Your task to perform on an android device: turn on sleep mode Image 0: 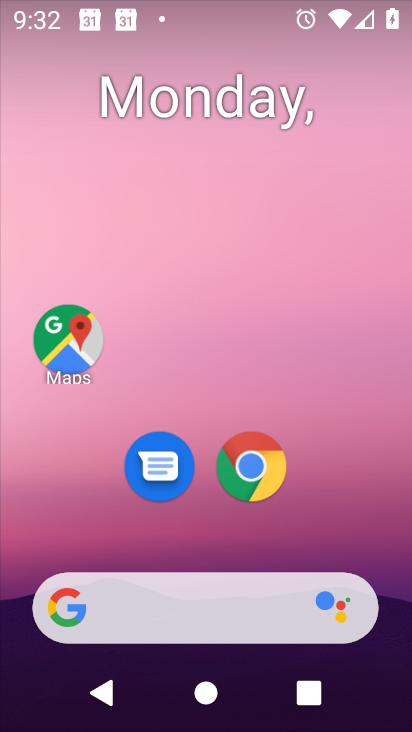
Step 0: drag from (395, 574) to (268, 6)
Your task to perform on an android device: turn on sleep mode Image 1: 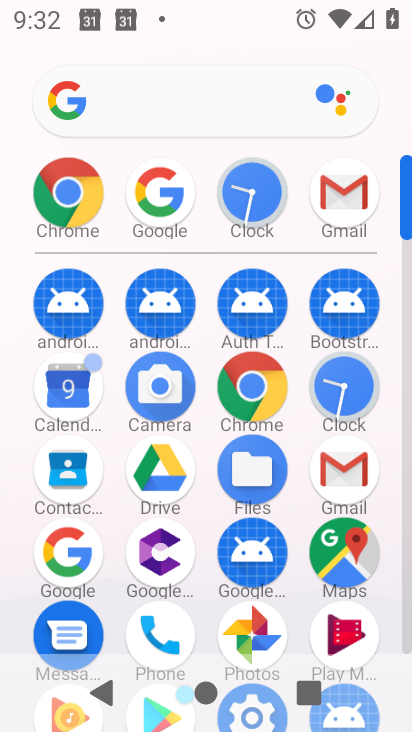
Step 1: drag from (315, 558) to (279, 60)
Your task to perform on an android device: turn on sleep mode Image 2: 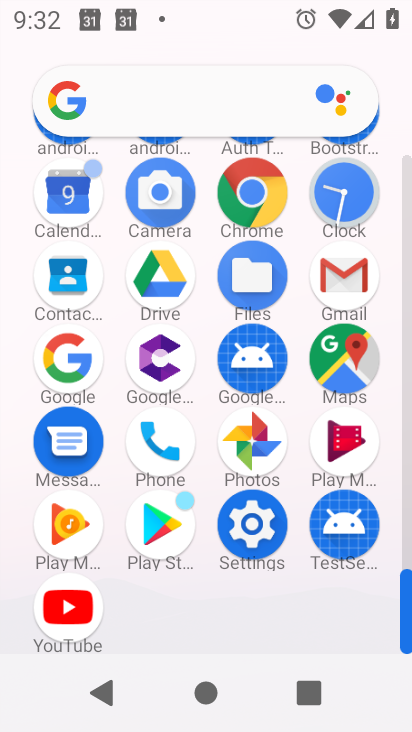
Step 2: drag from (258, 487) to (267, 533)
Your task to perform on an android device: turn on sleep mode Image 3: 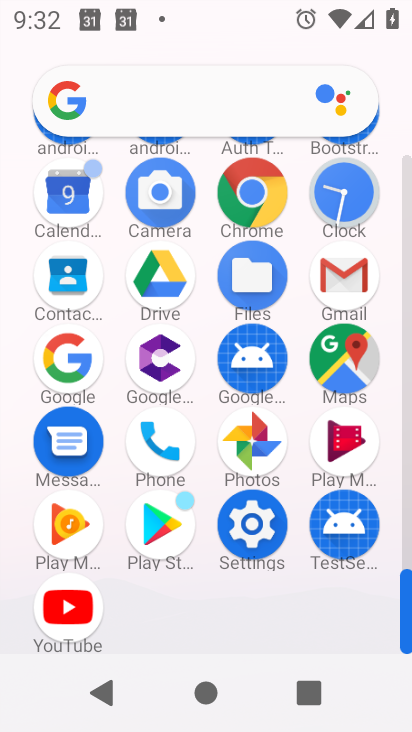
Step 3: click (270, 536)
Your task to perform on an android device: turn on sleep mode Image 4: 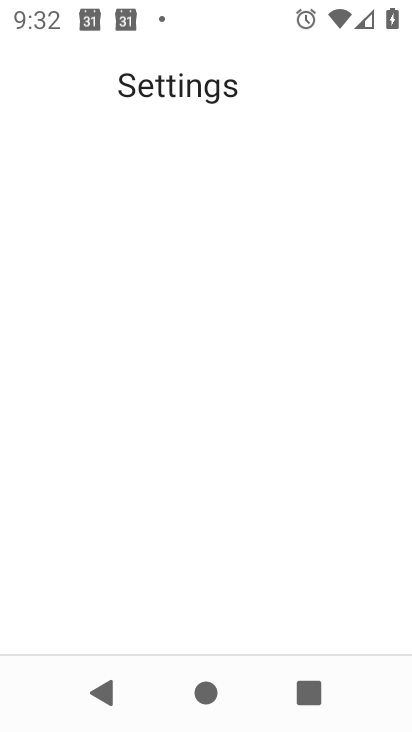
Step 4: click (252, 517)
Your task to perform on an android device: turn on sleep mode Image 5: 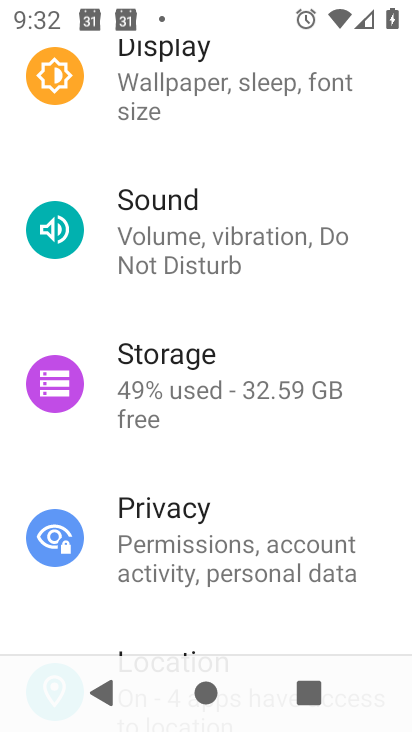
Step 5: click (252, 517)
Your task to perform on an android device: turn on sleep mode Image 6: 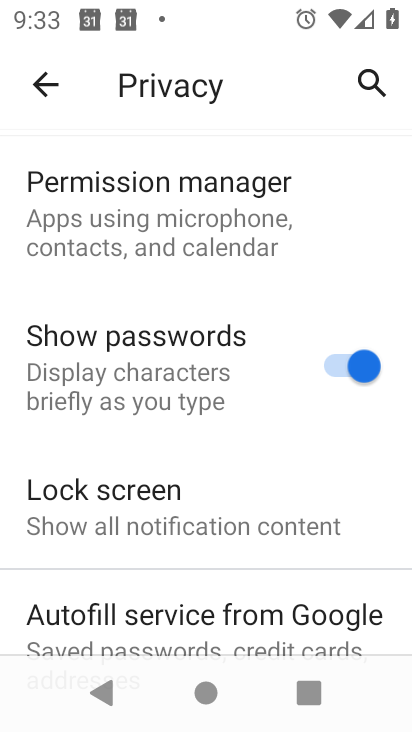
Step 6: click (39, 90)
Your task to perform on an android device: turn on sleep mode Image 7: 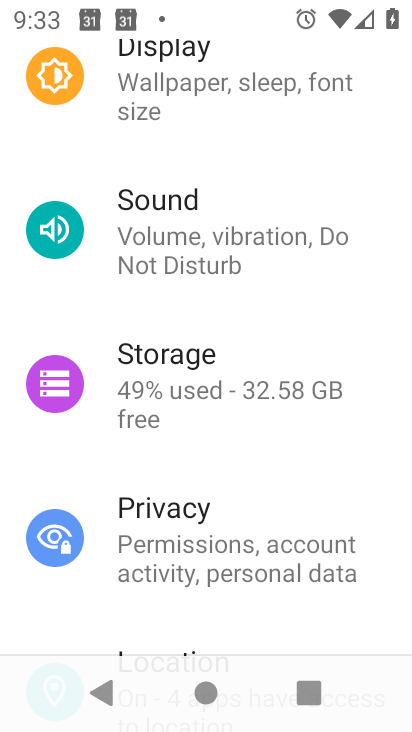
Step 7: drag from (165, 173) to (250, 522)
Your task to perform on an android device: turn on sleep mode Image 8: 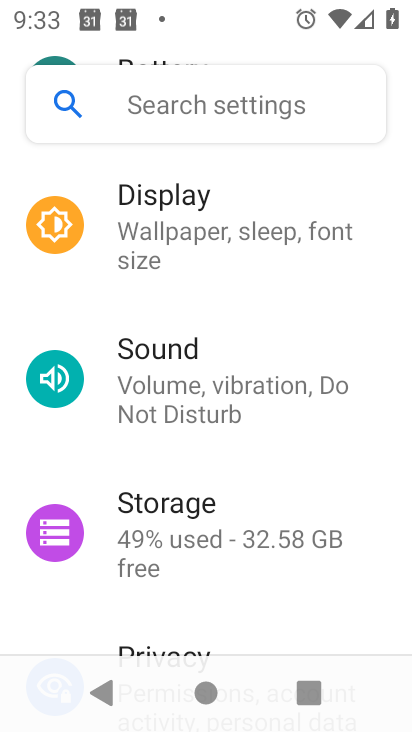
Step 8: click (185, 226)
Your task to perform on an android device: turn on sleep mode Image 9: 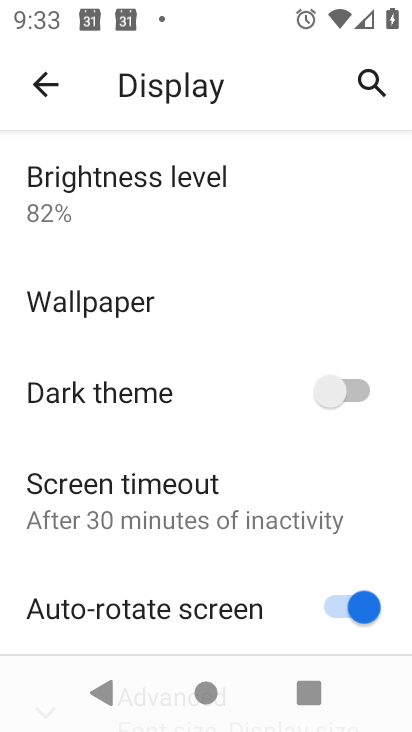
Step 9: click (158, 497)
Your task to perform on an android device: turn on sleep mode Image 10: 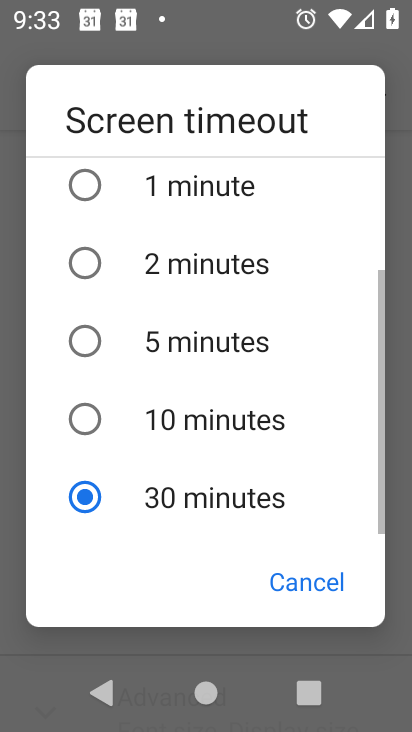
Step 10: task complete